Your task to perform on an android device: Open Youtube and go to the subscriptions tab Image 0: 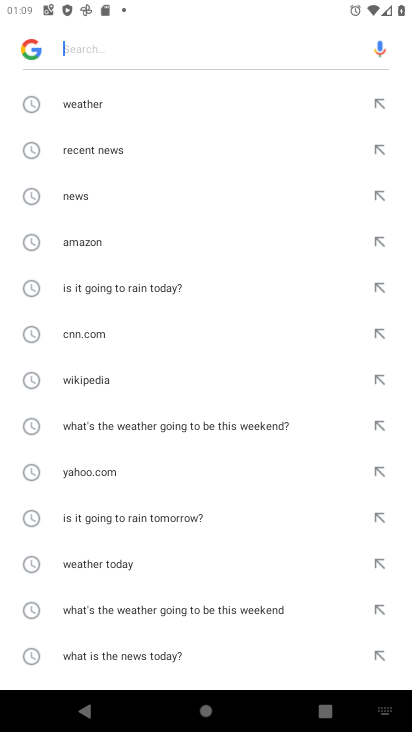
Step 0: press back button
Your task to perform on an android device: Open Youtube and go to the subscriptions tab Image 1: 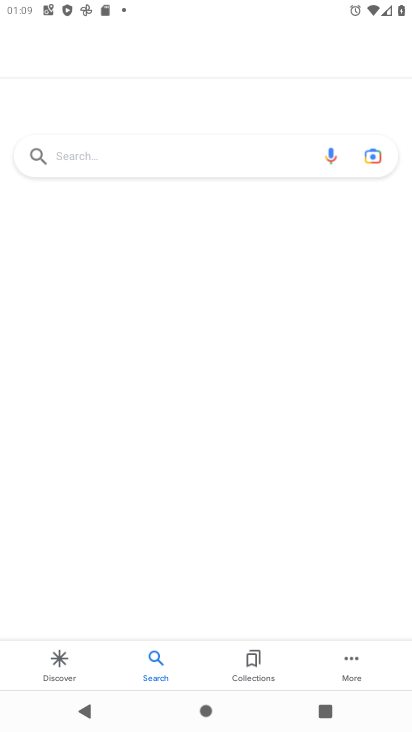
Step 1: press back button
Your task to perform on an android device: Open Youtube and go to the subscriptions tab Image 2: 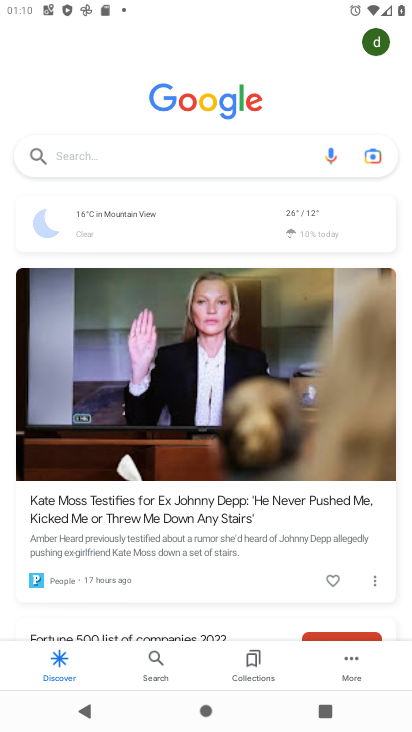
Step 2: press back button
Your task to perform on an android device: Open Youtube and go to the subscriptions tab Image 3: 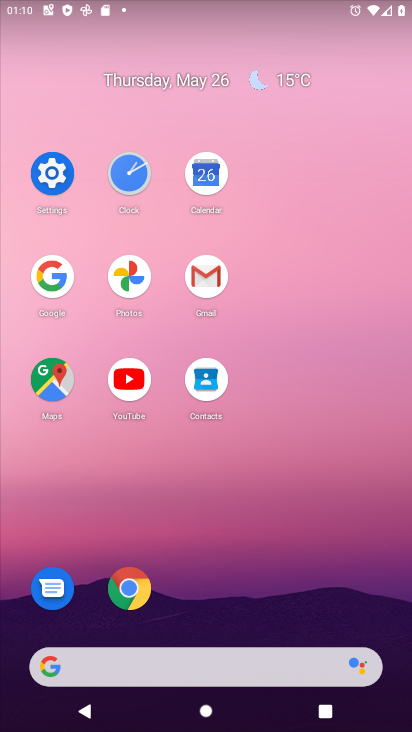
Step 3: click (144, 371)
Your task to perform on an android device: Open Youtube and go to the subscriptions tab Image 4: 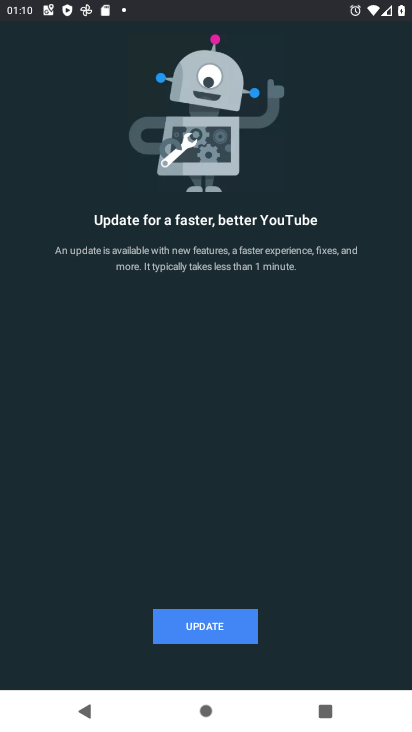
Step 4: click (229, 620)
Your task to perform on an android device: Open Youtube and go to the subscriptions tab Image 5: 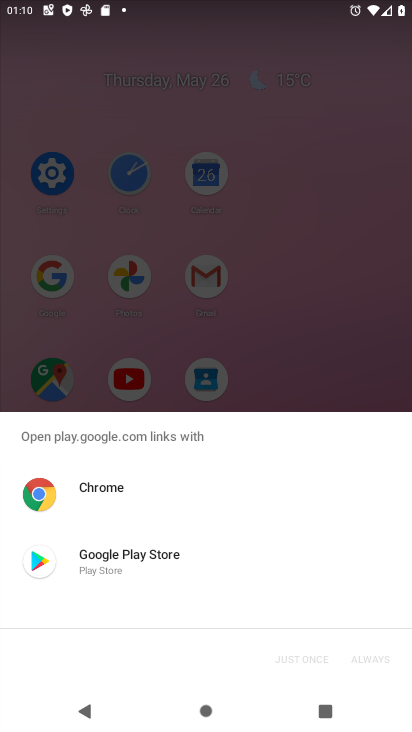
Step 5: click (147, 544)
Your task to perform on an android device: Open Youtube and go to the subscriptions tab Image 6: 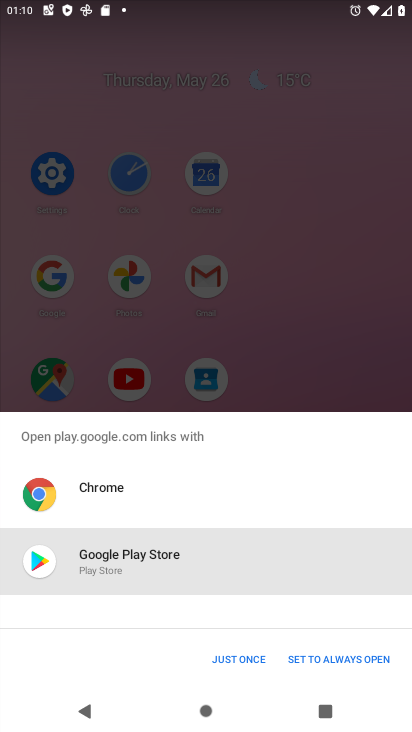
Step 6: click (159, 565)
Your task to perform on an android device: Open Youtube and go to the subscriptions tab Image 7: 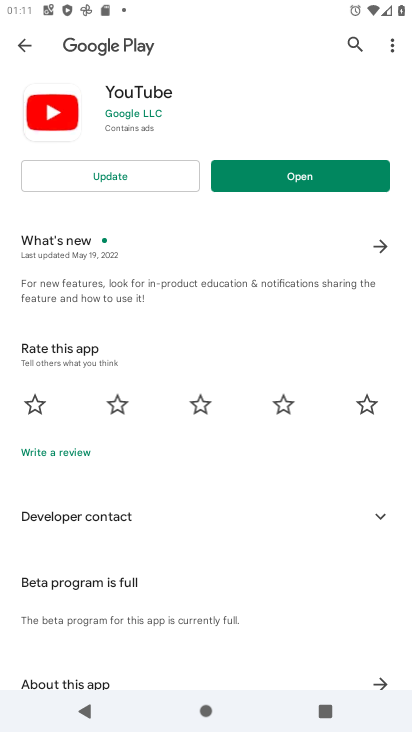
Step 7: click (169, 178)
Your task to perform on an android device: Open Youtube and go to the subscriptions tab Image 8: 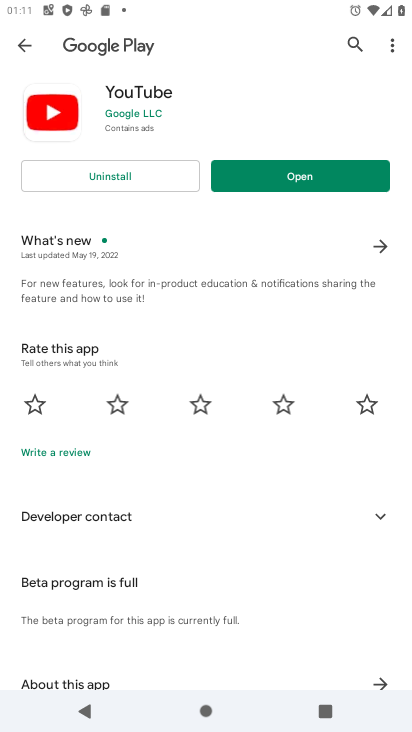
Step 8: click (318, 180)
Your task to perform on an android device: Open Youtube and go to the subscriptions tab Image 9: 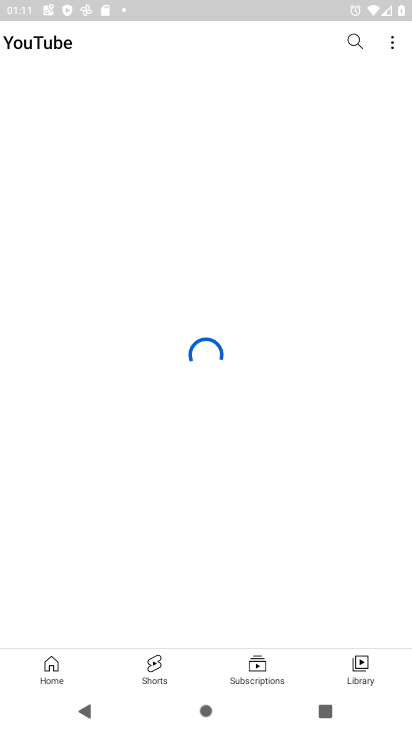
Step 9: click (272, 663)
Your task to perform on an android device: Open Youtube and go to the subscriptions tab Image 10: 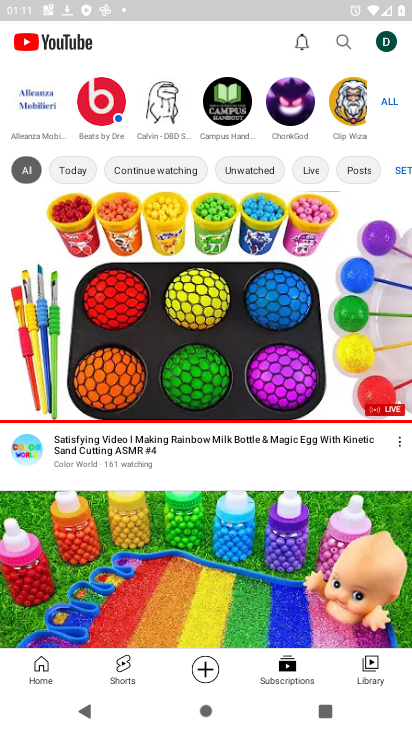
Step 10: task complete